Your task to perform on an android device: Find coffee shops on Maps Image 0: 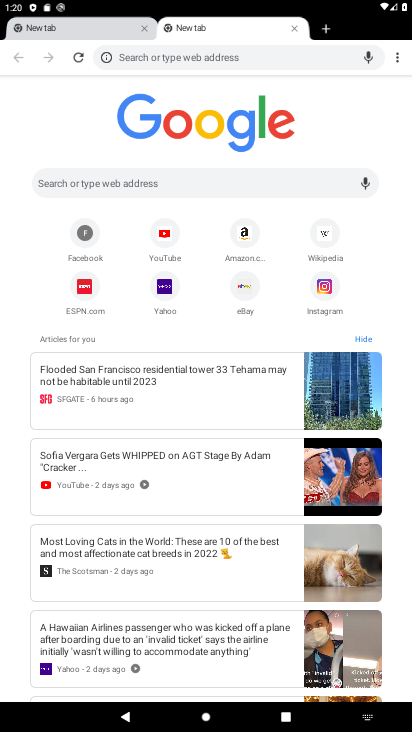
Step 0: press home button
Your task to perform on an android device: Find coffee shops on Maps Image 1: 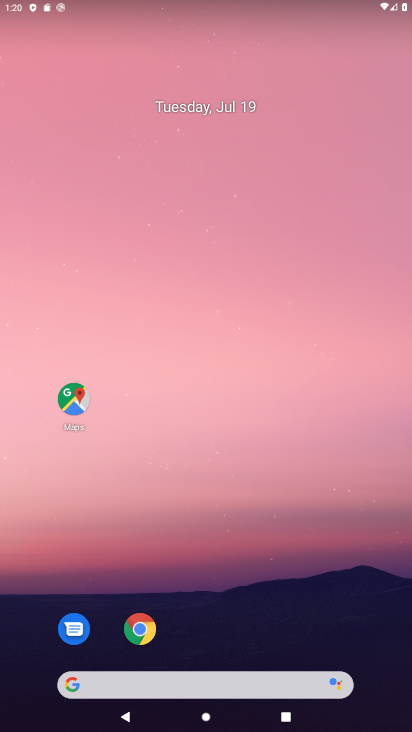
Step 1: click (73, 400)
Your task to perform on an android device: Find coffee shops on Maps Image 2: 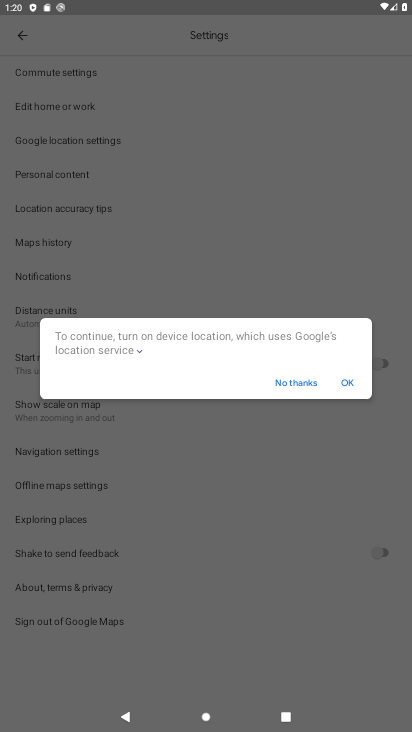
Step 2: click (21, 36)
Your task to perform on an android device: Find coffee shops on Maps Image 3: 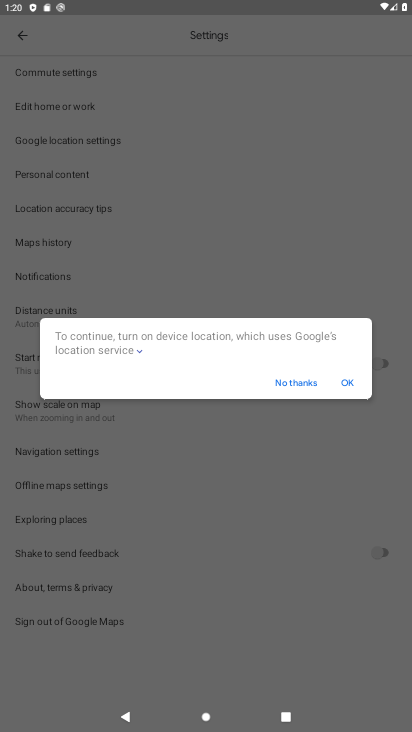
Step 3: click (351, 392)
Your task to perform on an android device: Find coffee shops on Maps Image 4: 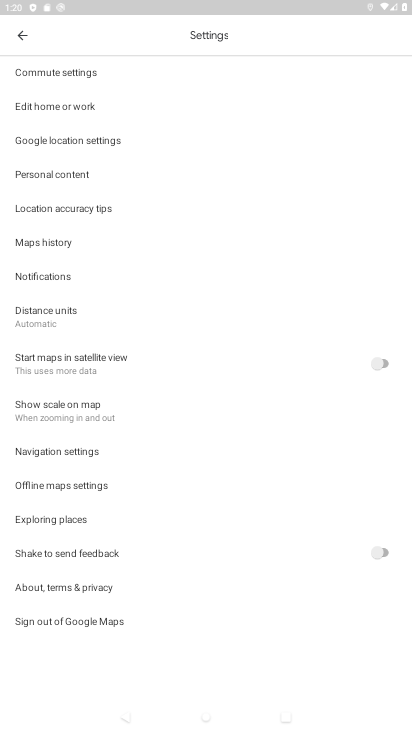
Step 4: click (21, 36)
Your task to perform on an android device: Find coffee shops on Maps Image 5: 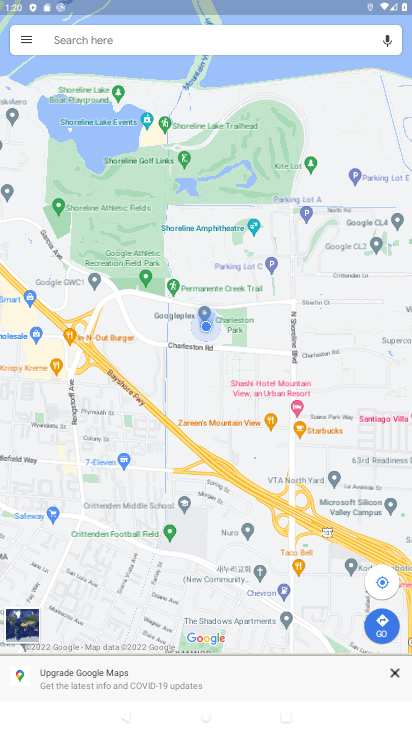
Step 5: click (207, 40)
Your task to perform on an android device: Find coffee shops on Maps Image 6: 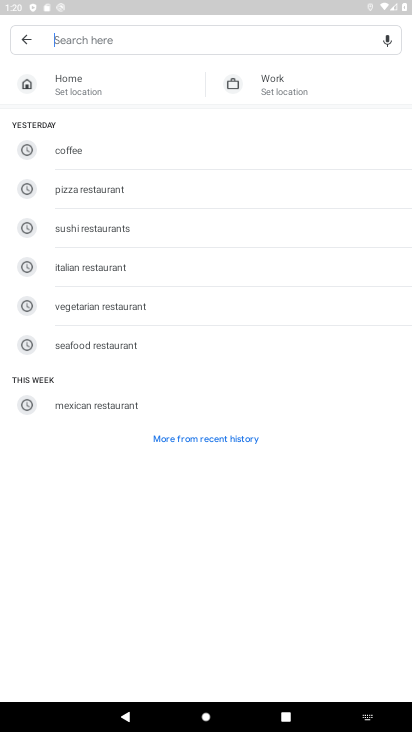
Step 6: click (74, 147)
Your task to perform on an android device: Find coffee shops on Maps Image 7: 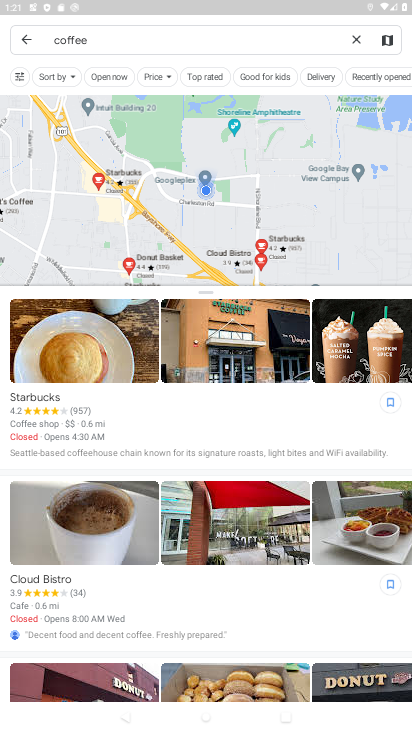
Step 7: task complete